Your task to perform on an android device: open app "Firefox Browser" Image 0: 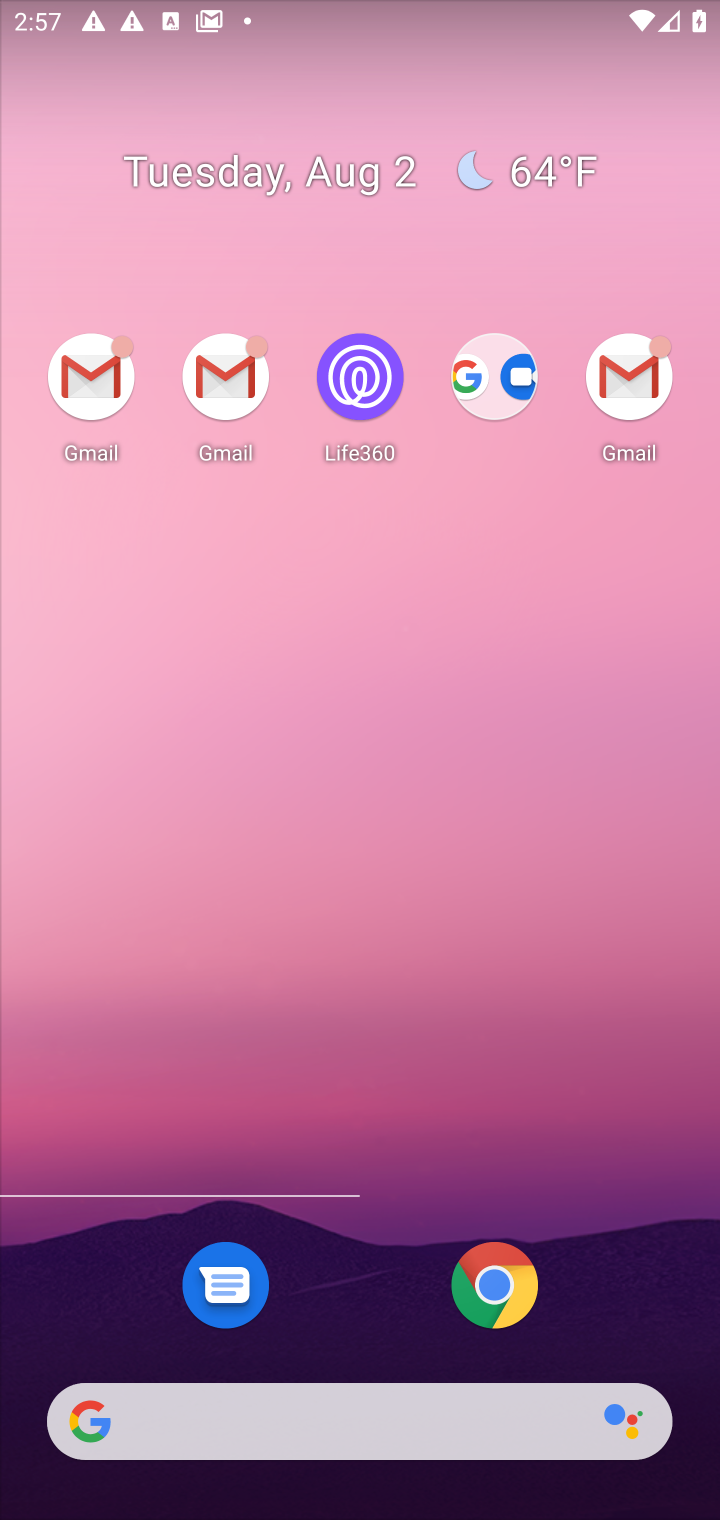
Step 0: drag from (353, 273) to (165, 13)
Your task to perform on an android device: open app "Firefox Browser" Image 1: 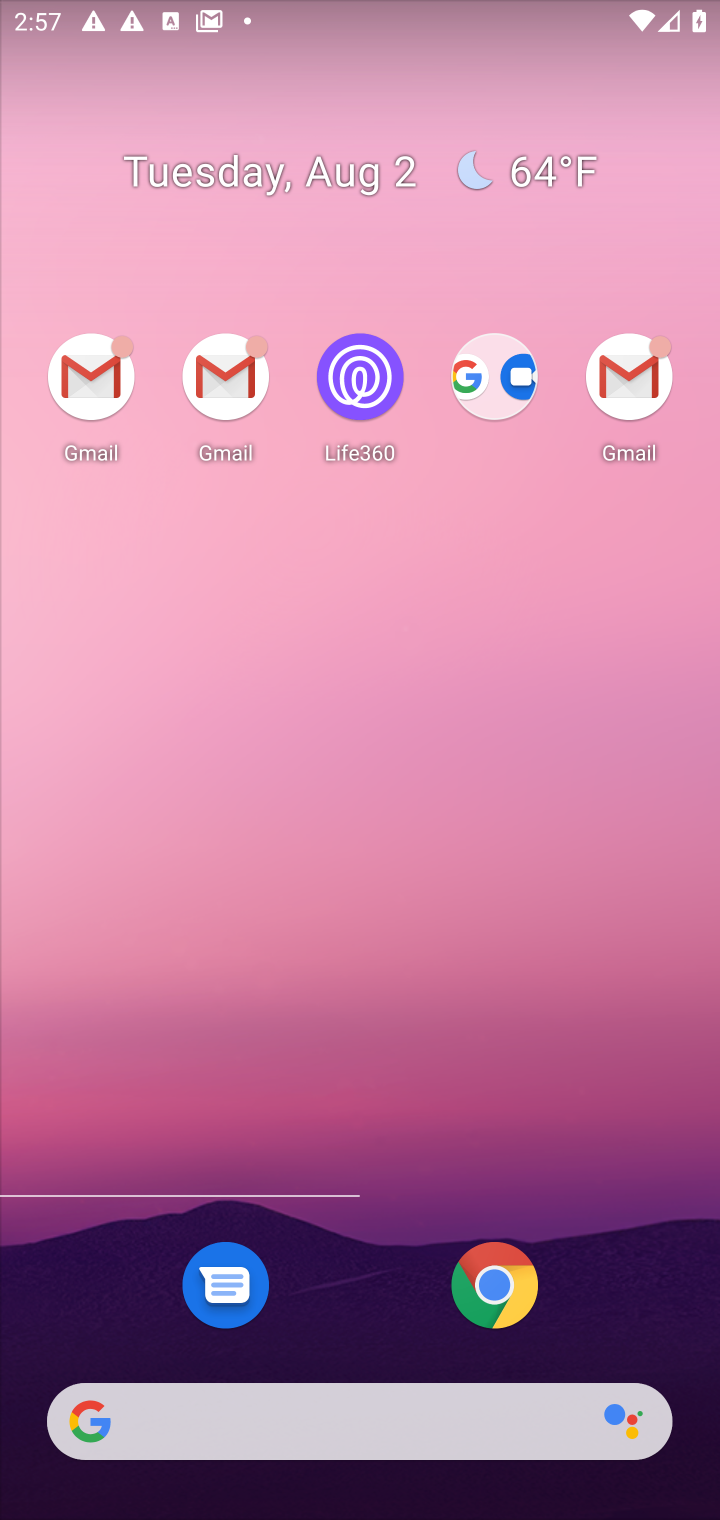
Step 1: drag from (509, 985) to (439, 191)
Your task to perform on an android device: open app "Firefox Browser" Image 2: 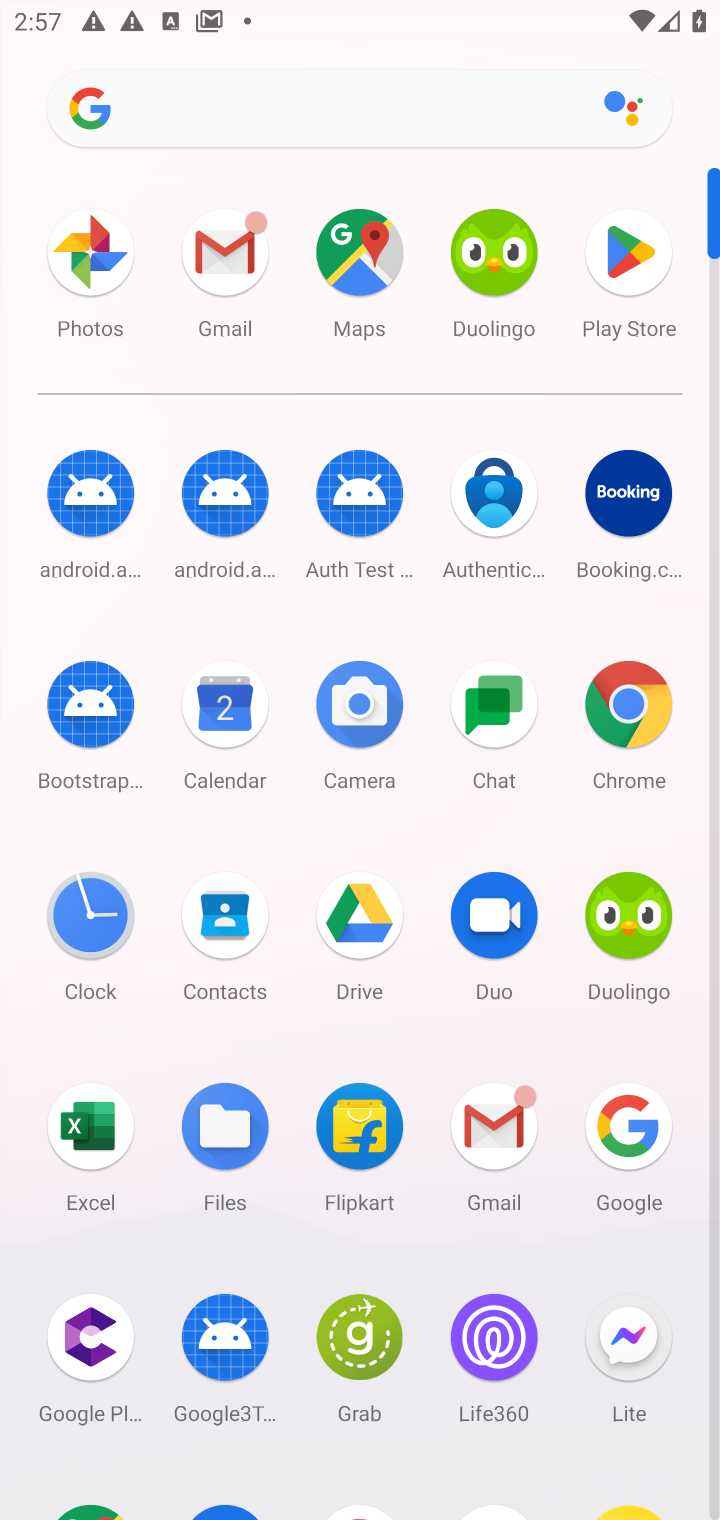
Step 2: drag from (287, 1057) to (272, 397)
Your task to perform on an android device: open app "Firefox Browser" Image 3: 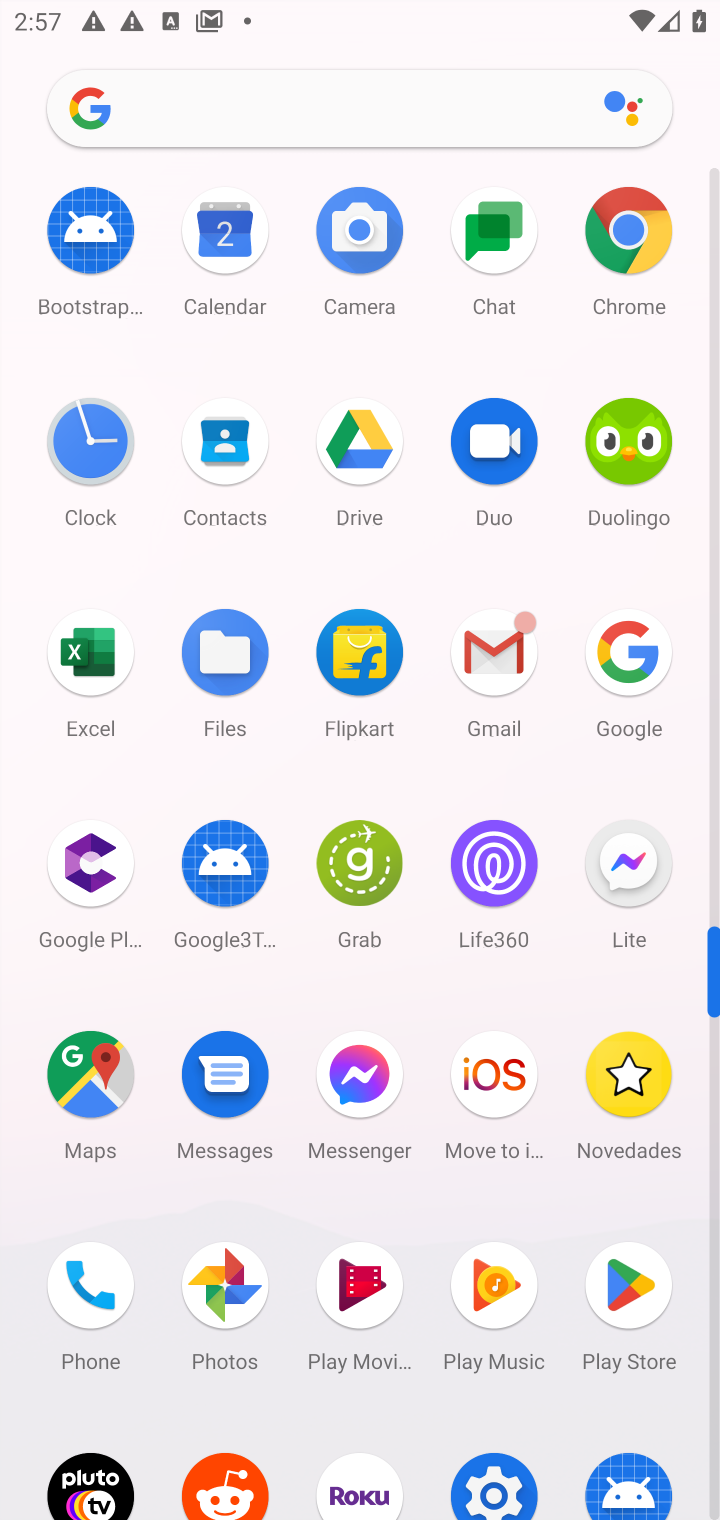
Step 3: click (652, 1293)
Your task to perform on an android device: open app "Firefox Browser" Image 4: 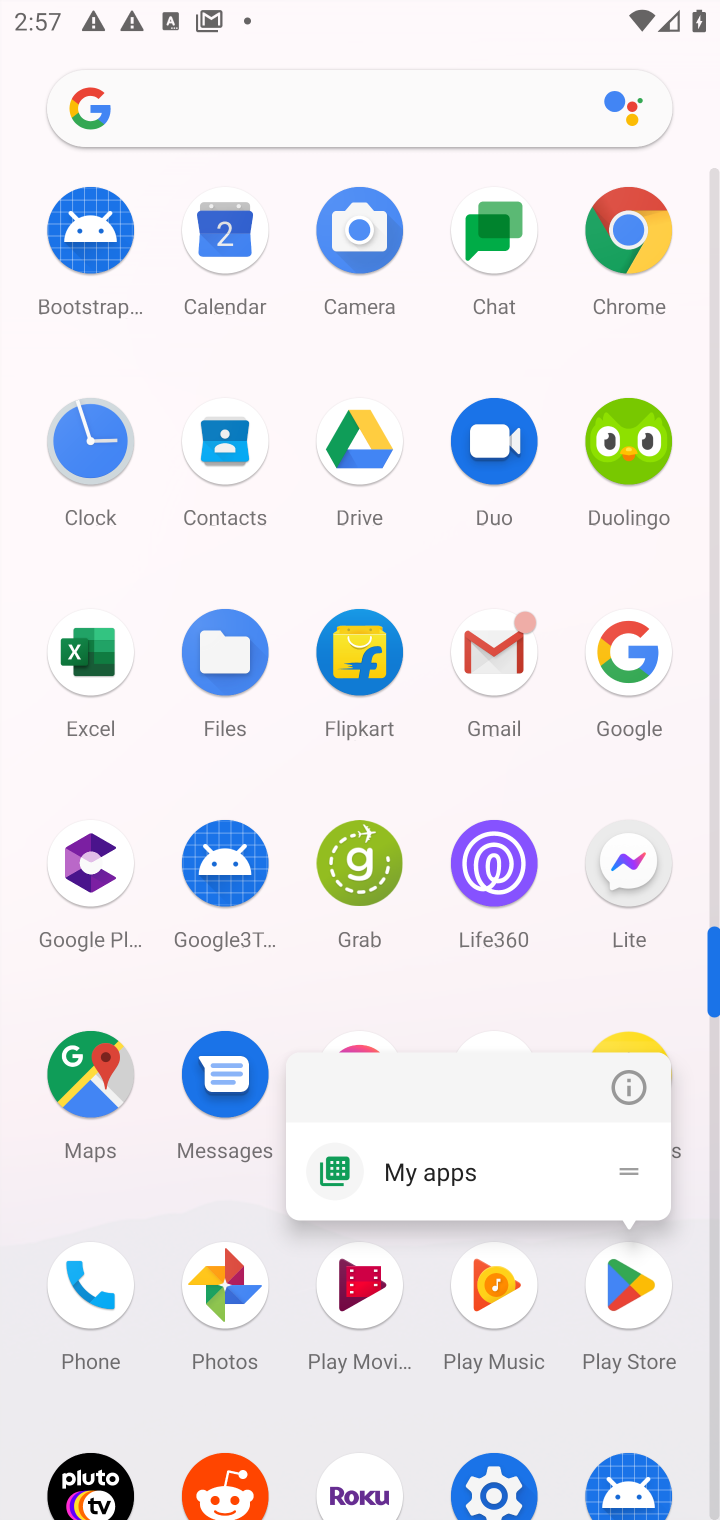
Step 4: click (627, 1289)
Your task to perform on an android device: open app "Firefox Browser" Image 5: 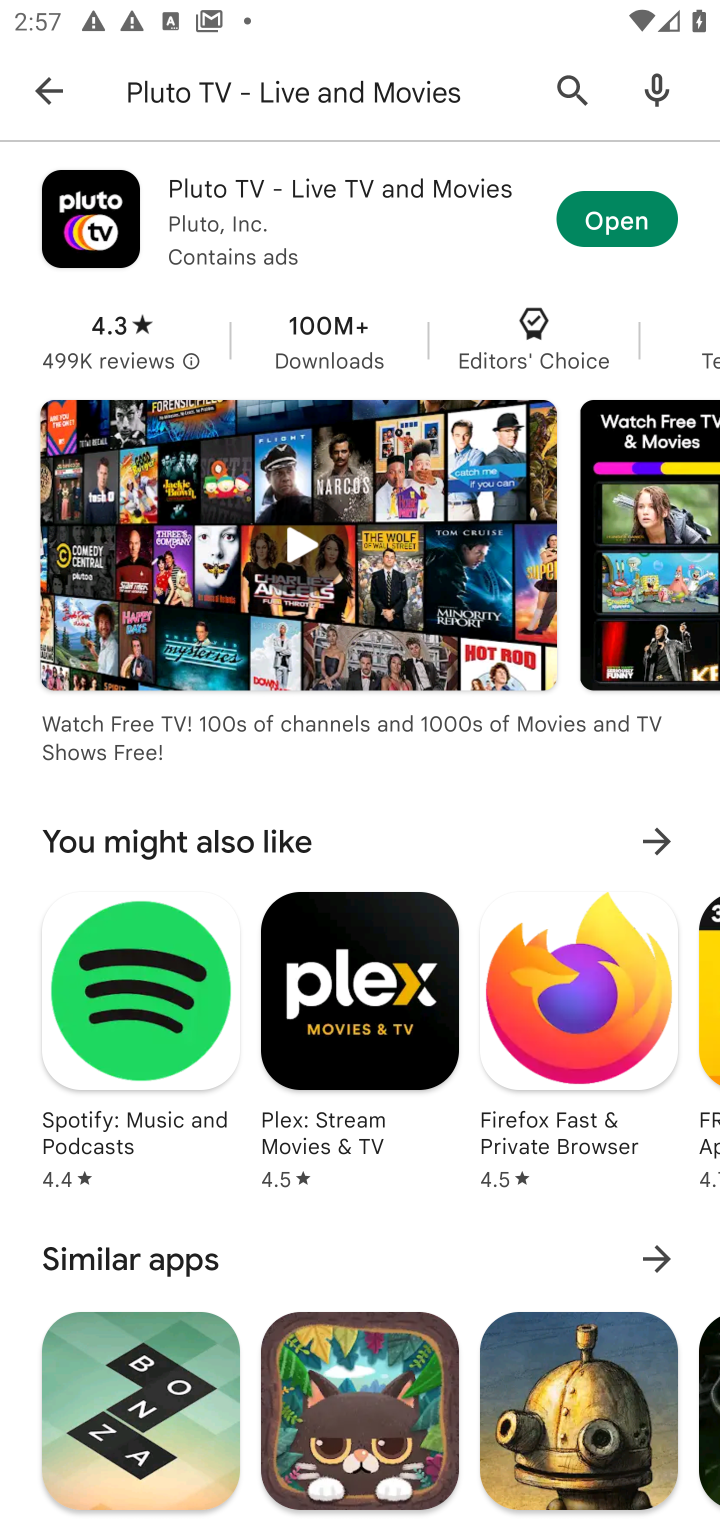
Step 5: click (315, 114)
Your task to perform on an android device: open app "Firefox Browser" Image 6: 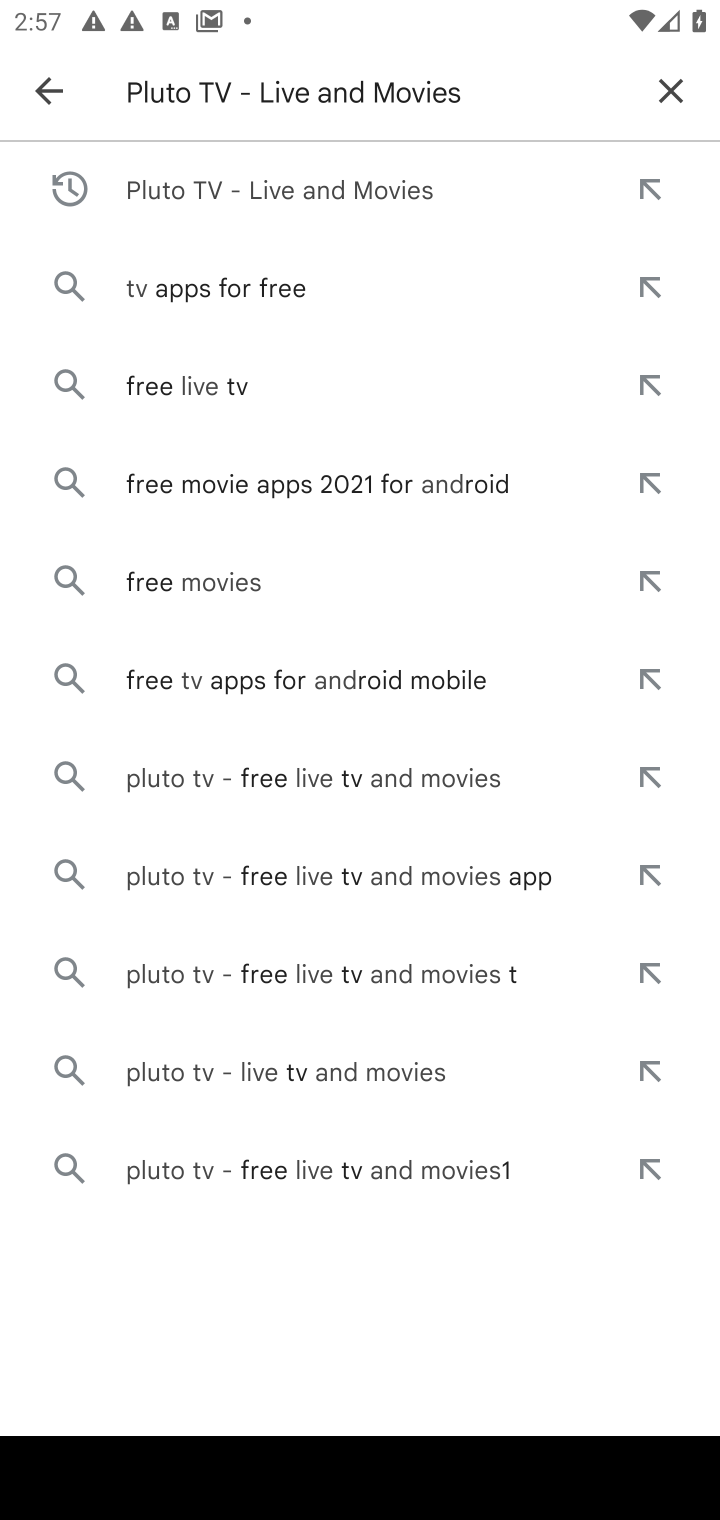
Step 6: click (687, 107)
Your task to perform on an android device: open app "Firefox Browser" Image 7: 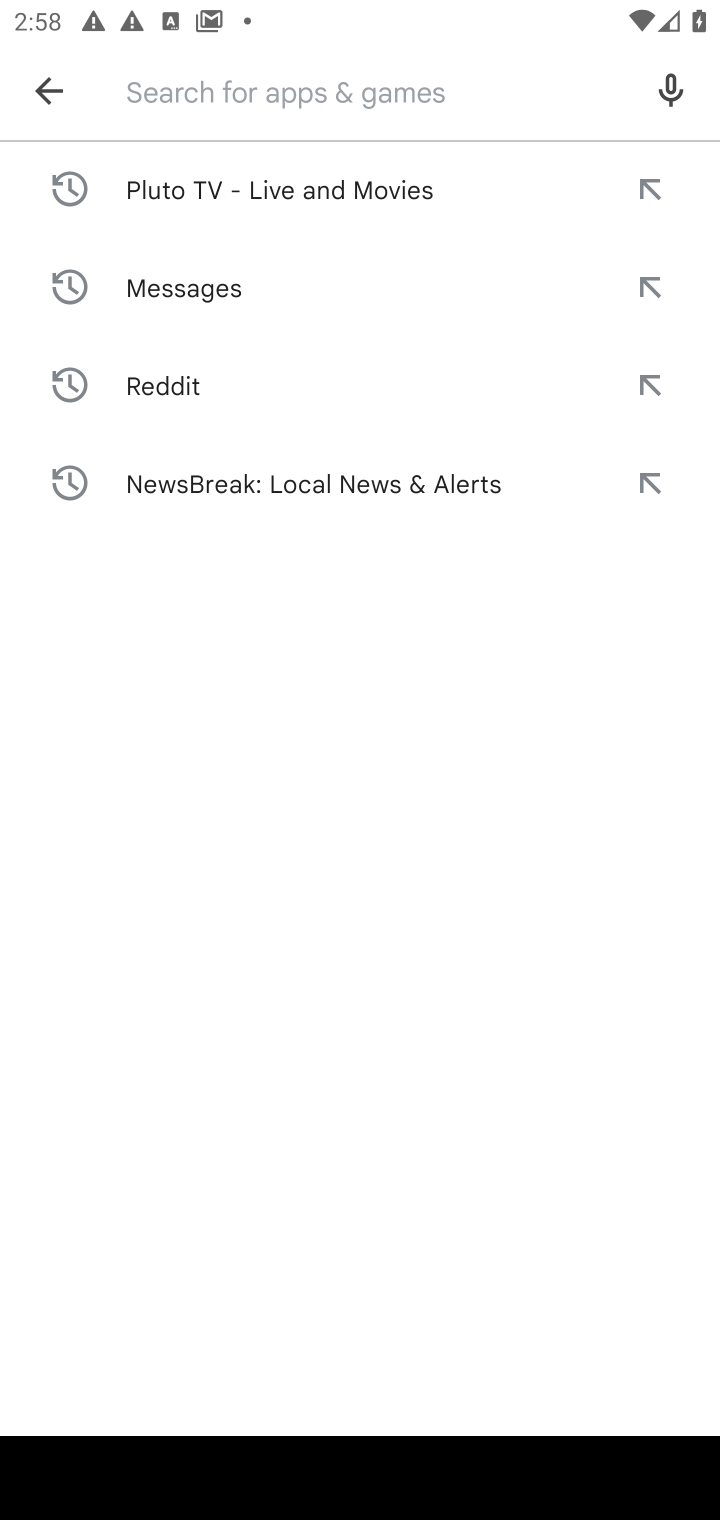
Step 7: type "Firefox Browser"
Your task to perform on an android device: open app "Firefox Browser" Image 8: 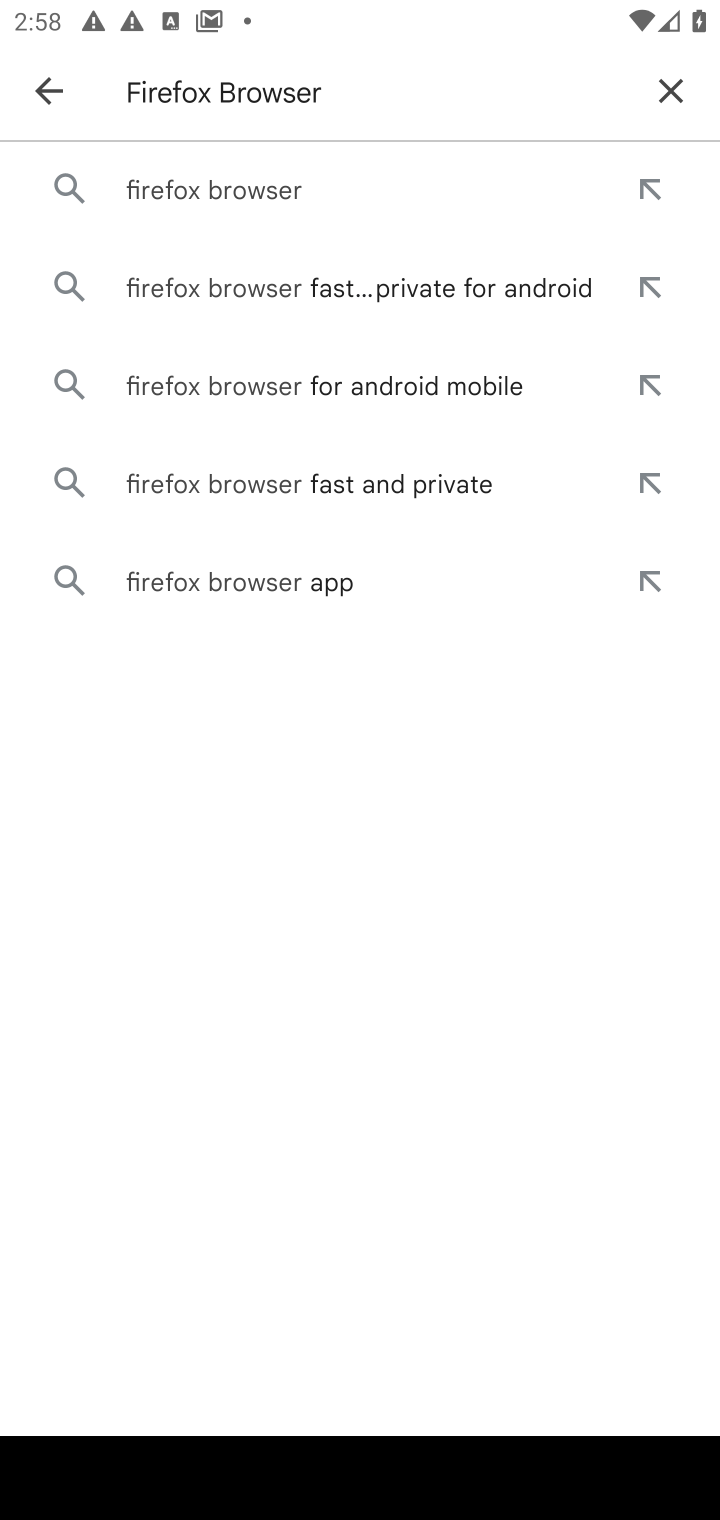
Step 8: press enter
Your task to perform on an android device: open app "Firefox Browser" Image 9: 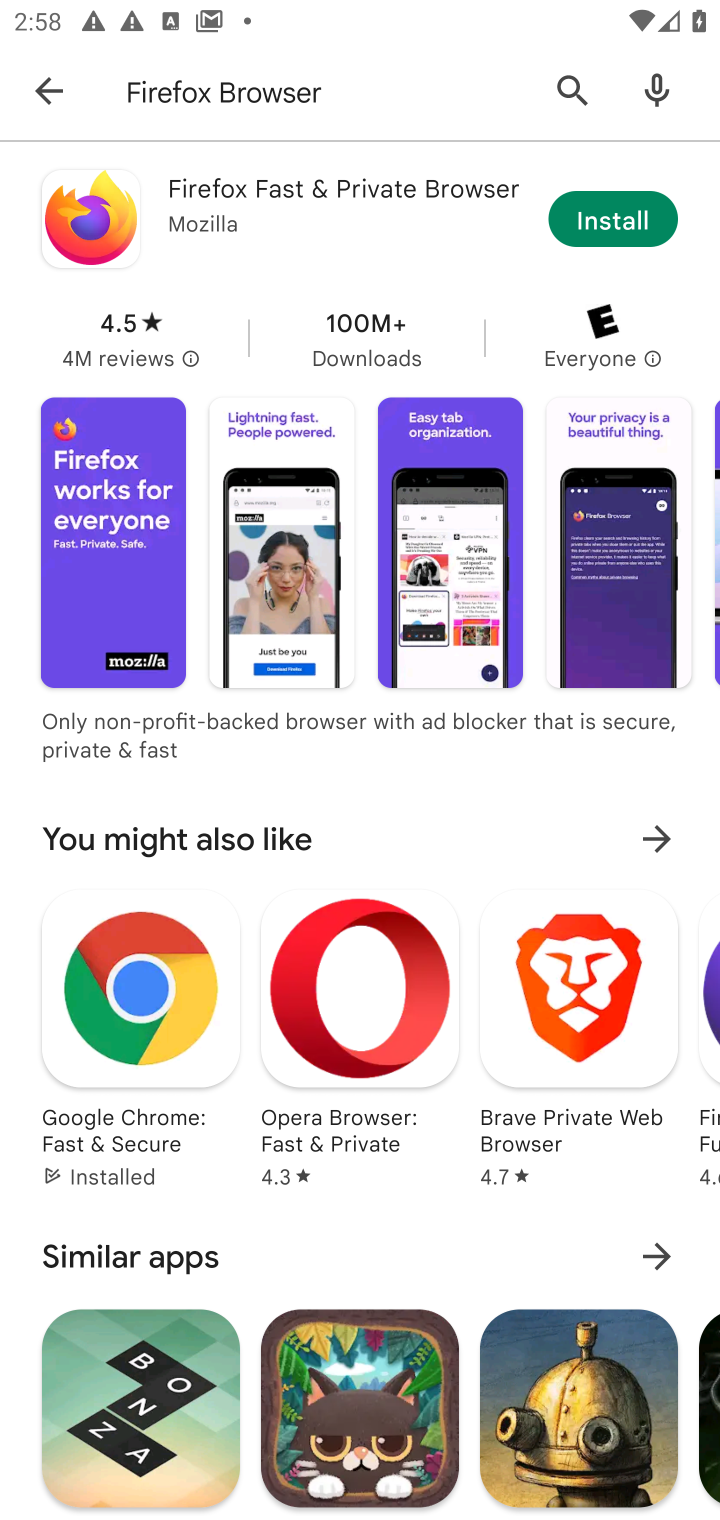
Step 9: task complete